Your task to perform on an android device: Go to Google Image 0: 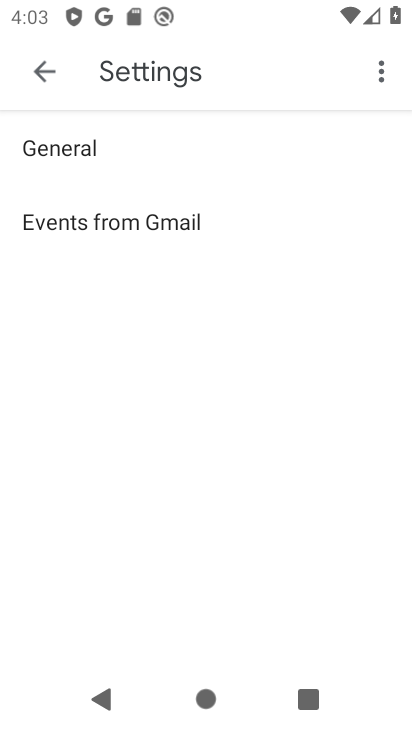
Step 0: press back button
Your task to perform on an android device: Go to Google Image 1: 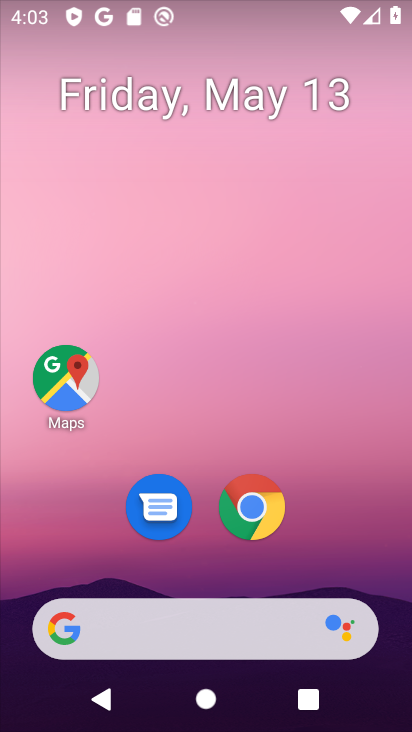
Step 1: click (194, 630)
Your task to perform on an android device: Go to Google Image 2: 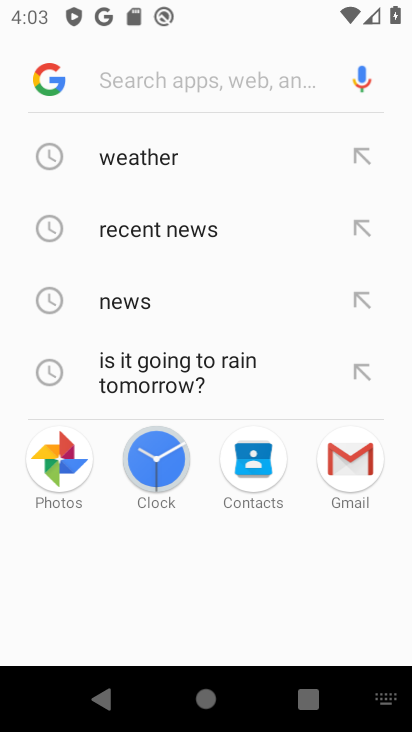
Step 2: task complete